Your task to perform on an android device: delete the emails in spam in the gmail app Image 0: 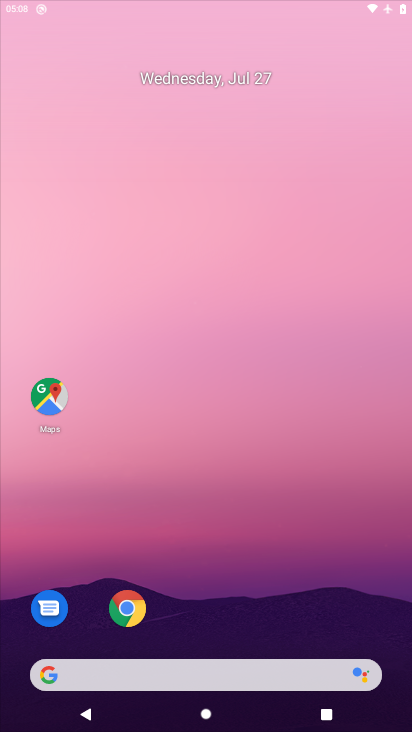
Step 0: press home button
Your task to perform on an android device: delete the emails in spam in the gmail app Image 1: 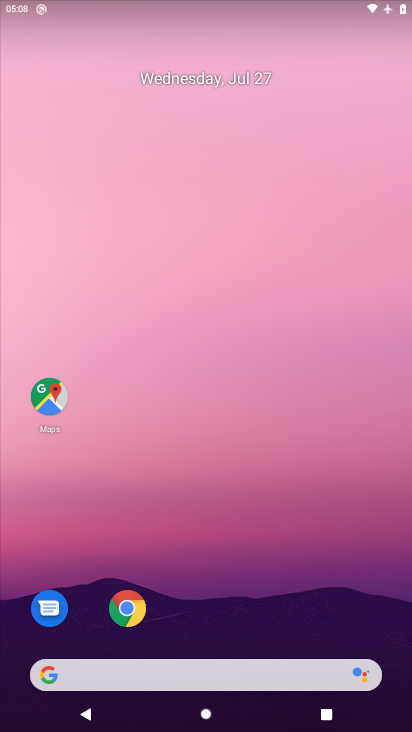
Step 1: drag from (240, 645) to (256, 322)
Your task to perform on an android device: delete the emails in spam in the gmail app Image 2: 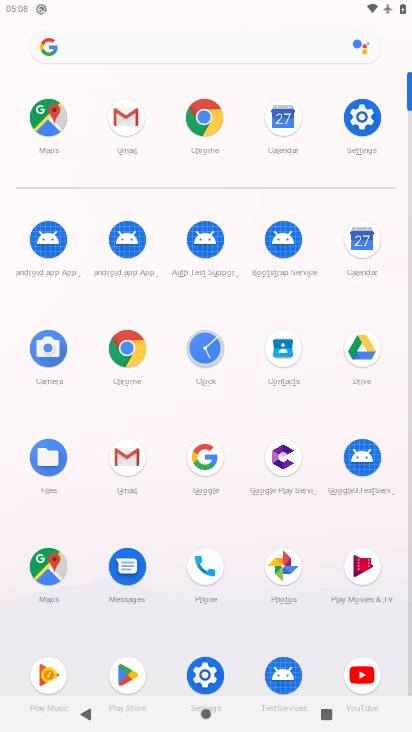
Step 2: click (126, 126)
Your task to perform on an android device: delete the emails in spam in the gmail app Image 3: 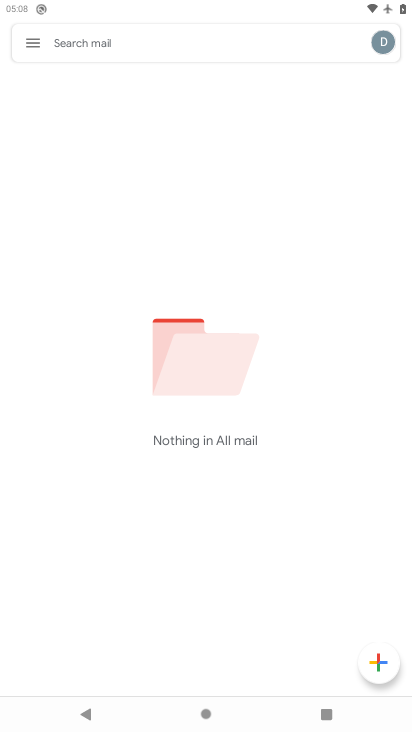
Step 3: click (30, 45)
Your task to perform on an android device: delete the emails in spam in the gmail app Image 4: 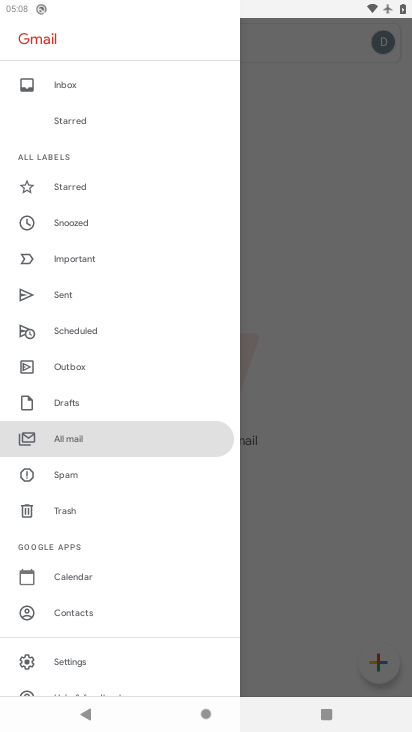
Step 4: click (57, 477)
Your task to perform on an android device: delete the emails in spam in the gmail app Image 5: 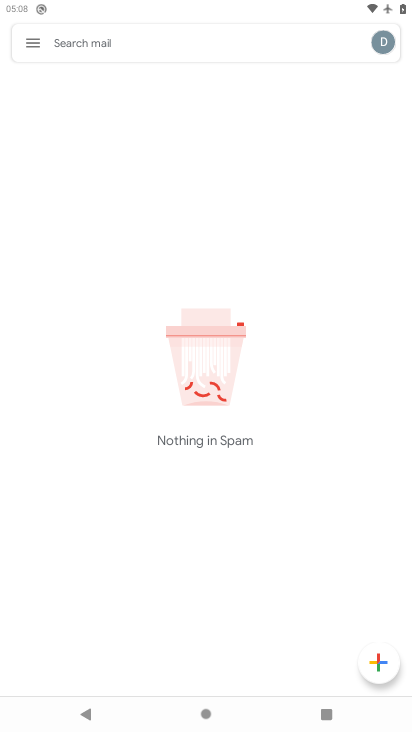
Step 5: task complete